Your task to perform on an android device: Open accessibility settings Image 0: 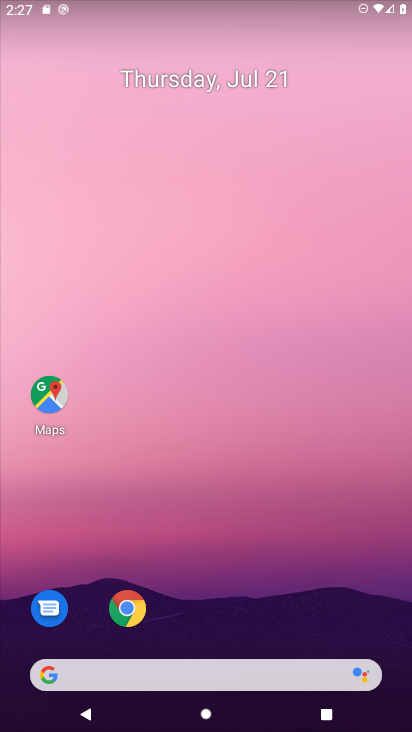
Step 0: drag from (207, 608) to (216, 168)
Your task to perform on an android device: Open accessibility settings Image 1: 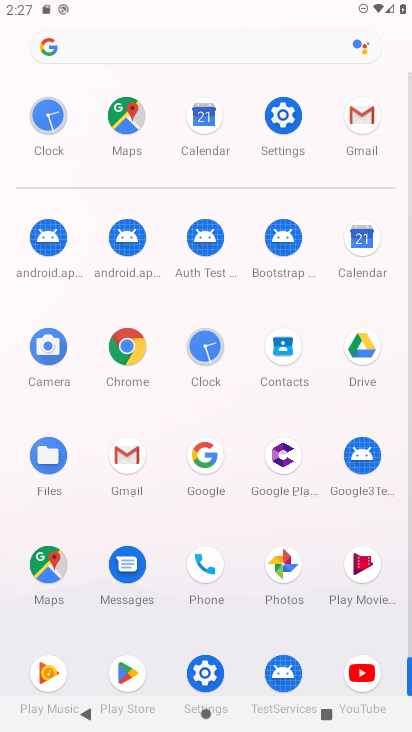
Step 1: click (282, 126)
Your task to perform on an android device: Open accessibility settings Image 2: 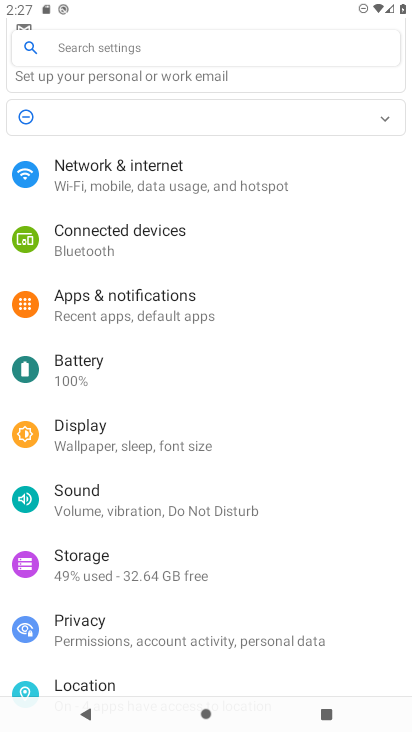
Step 2: drag from (135, 617) to (147, 247)
Your task to perform on an android device: Open accessibility settings Image 3: 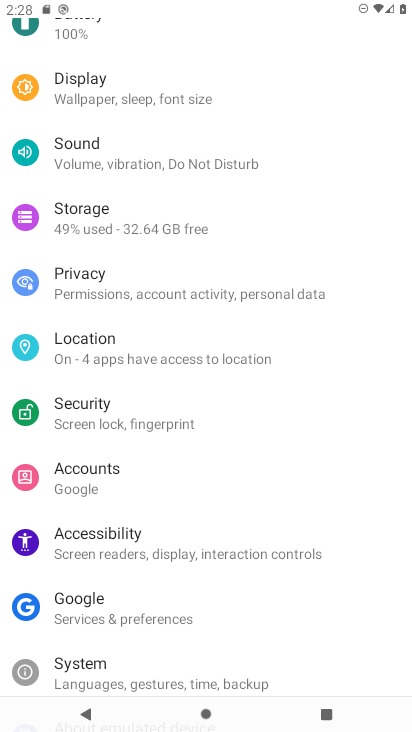
Step 3: click (127, 543)
Your task to perform on an android device: Open accessibility settings Image 4: 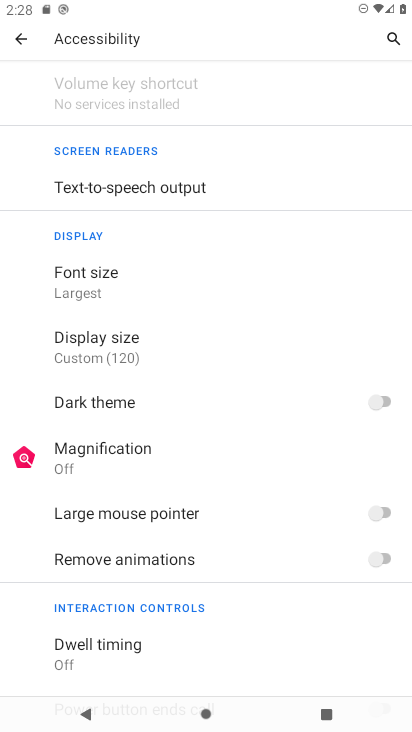
Step 4: task complete